Your task to perform on an android device: Open Google Image 0: 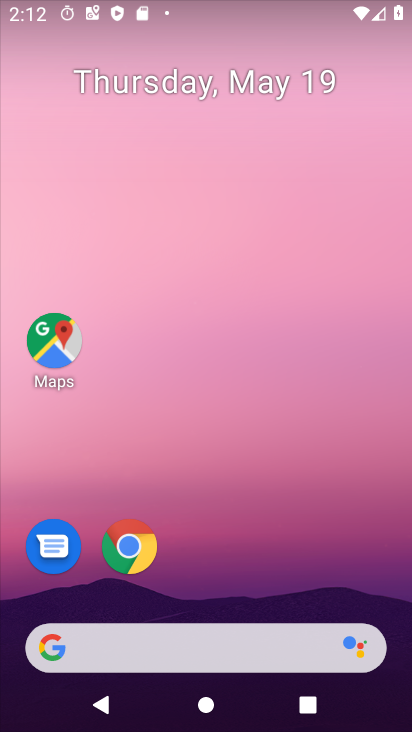
Step 0: click (148, 654)
Your task to perform on an android device: Open Google Image 1: 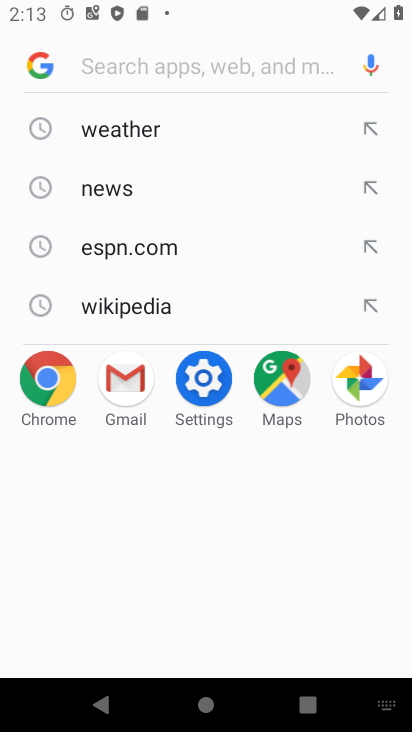
Step 1: task complete